Your task to perform on an android device: Go to Google Image 0: 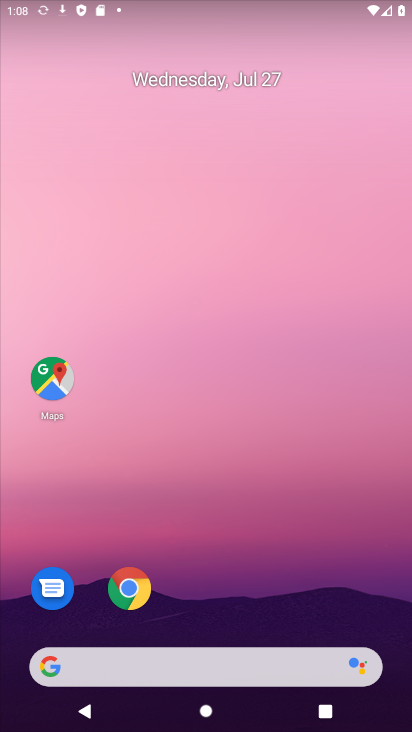
Step 0: drag from (196, 597) to (145, 150)
Your task to perform on an android device: Go to Google Image 1: 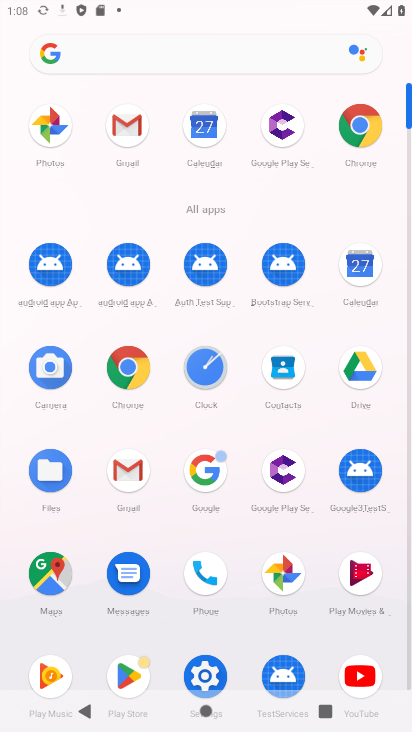
Step 1: click (201, 483)
Your task to perform on an android device: Go to Google Image 2: 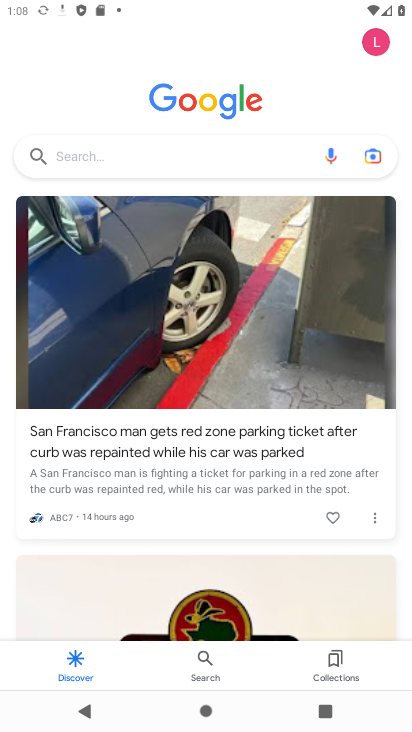
Step 2: task complete